Your task to perform on an android device: check storage Image 0: 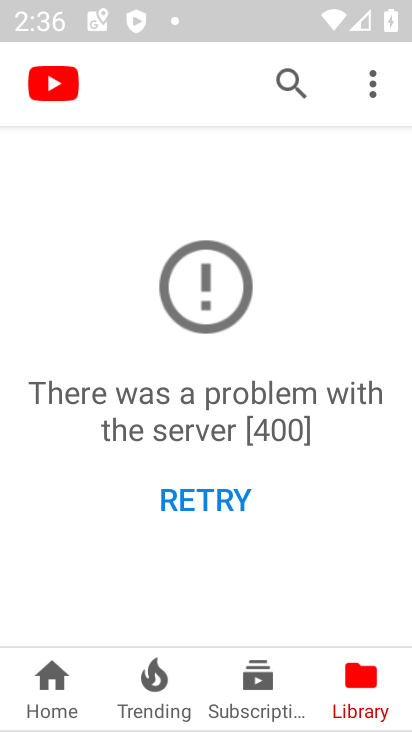
Step 0: press back button
Your task to perform on an android device: check storage Image 1: 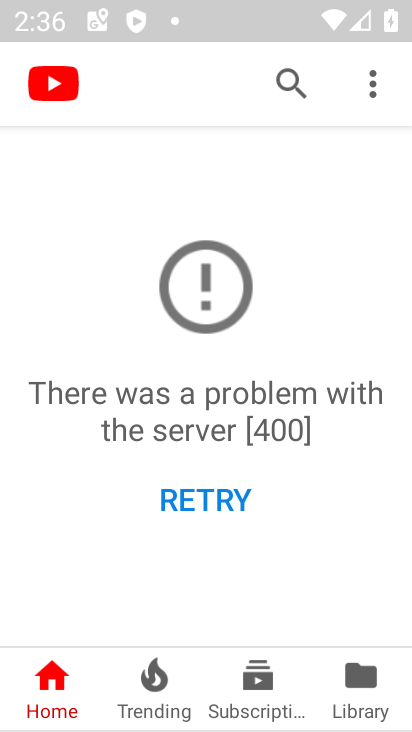
Step 1: press home button
Your task to perform on an android device: check storage Image 2: 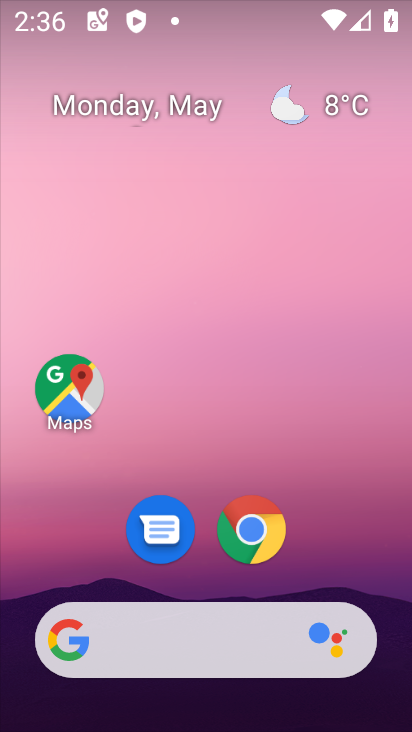
Step 2: drag from (187, 578) to (322, 85)
Your task to perform on an android device: check storage Image 3: 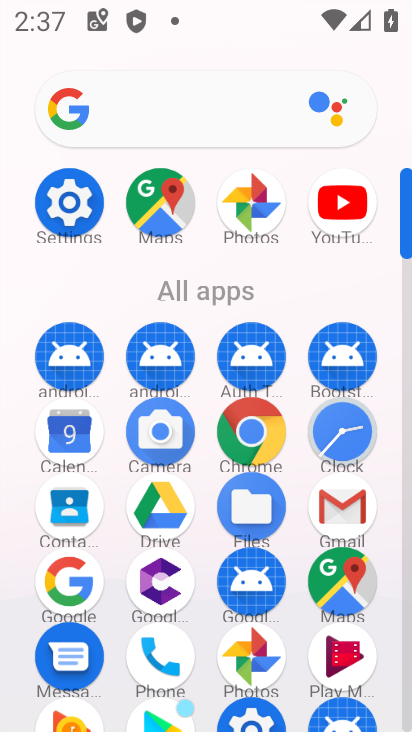
Step 3: drag from (215, 626) to (273, 432)
Your task to perform on an android device: check storage Image 4: 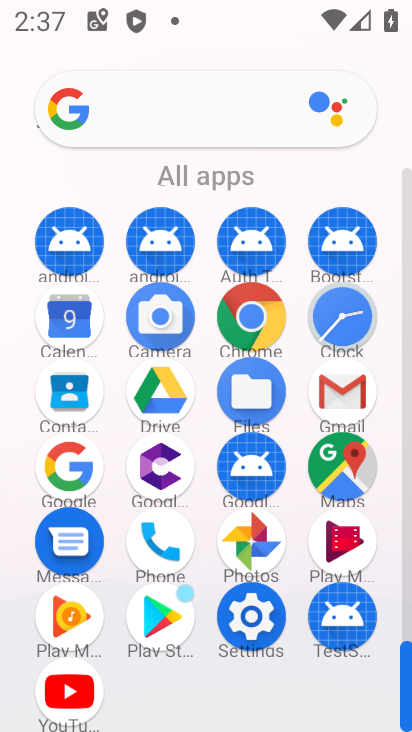
Step 4: click (250, 612)
Your task to perform on an android device: check storage Image 5: 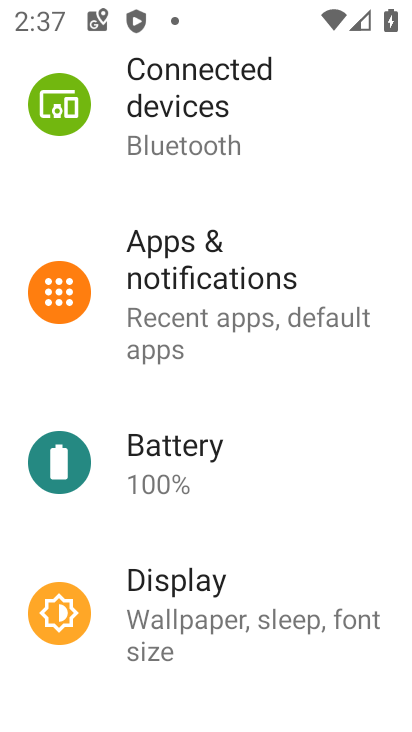
Step 5: drag from (190, 622) to (254, 468)
Your task to perform on an android device: check storage Image 6: 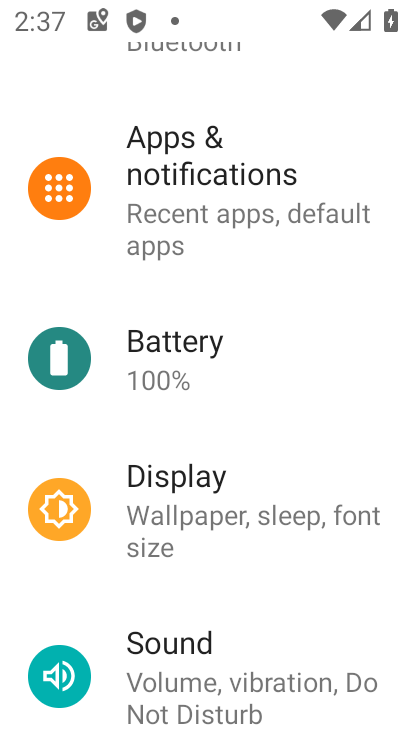
Step 6: drag from (249, 612) to (275, 544)
Your task to perform on an android device: check storage Image 7: 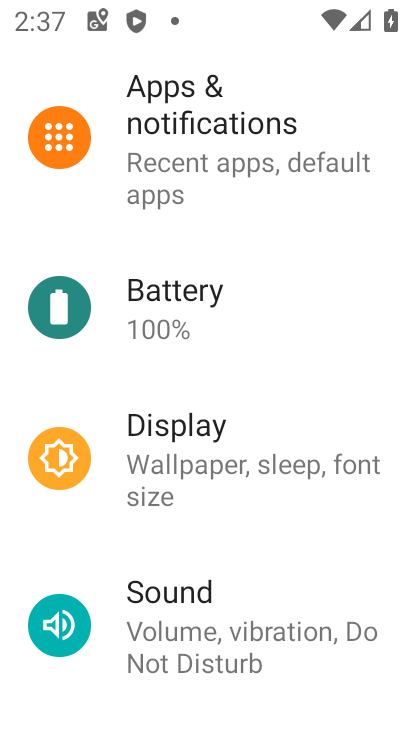
Step 7: drag from (303, 656) to (357, 510)
Your task to perform on an android device: check storage Image 8: 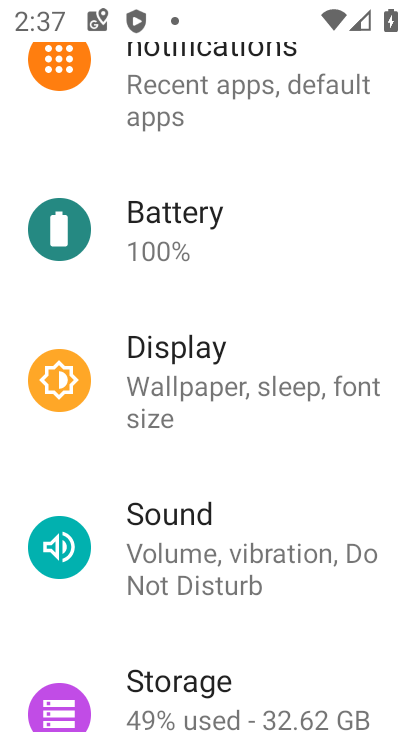
Step 8: click (287, 675)
Your task to perform on an android device: check storage Image 9: 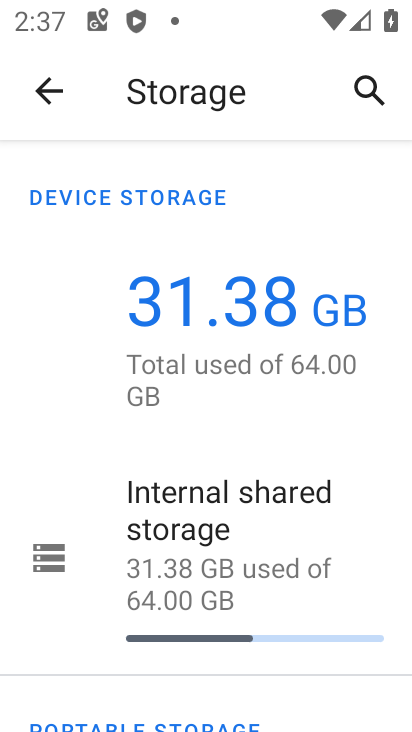
Step 9: drag from (253, 621) to (347, 315)
Your task to perform on an android device: check storage Image 10: 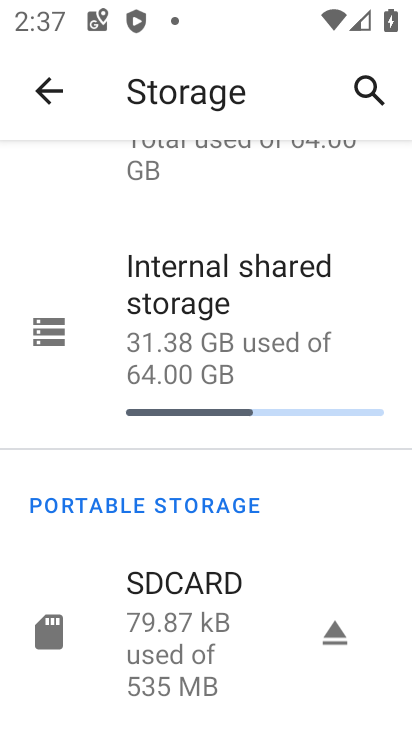
Step 10: click (210, 377)
Your task to perform on an android device: check storage Image 11: 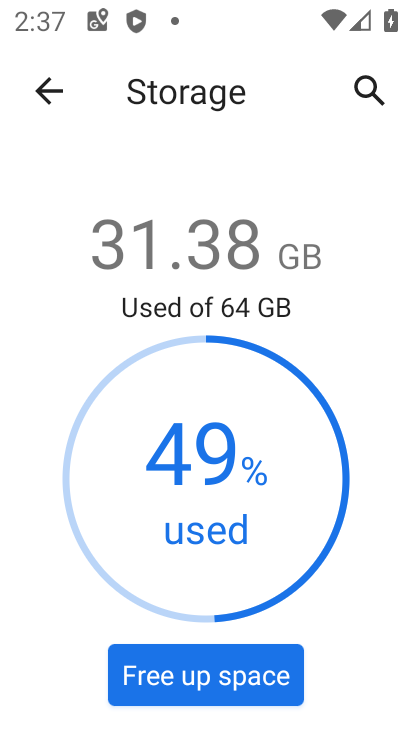
Step 11: task complete